Your task to perform on an android device: Is it going to rain this weekend? Image 0: 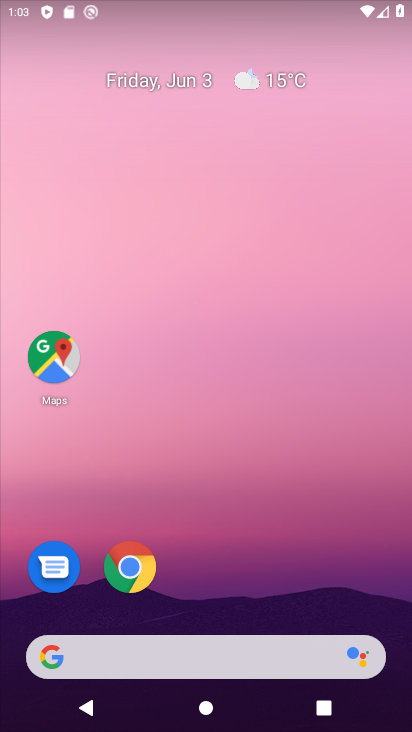
Step 0: drag from (220, 569) to (236, 11)
Your task to perform on an android device: Is it going to rain this weekend? Image 1: 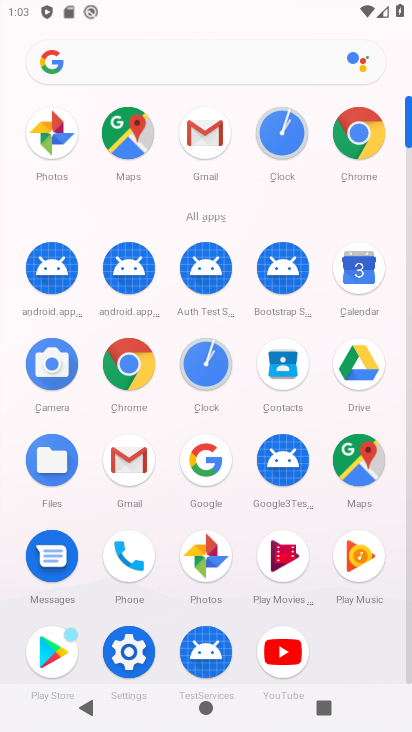
Step 1: click (134, 354)
Your task to perform on an android device: Is it going to rain this weekend? Image 2: 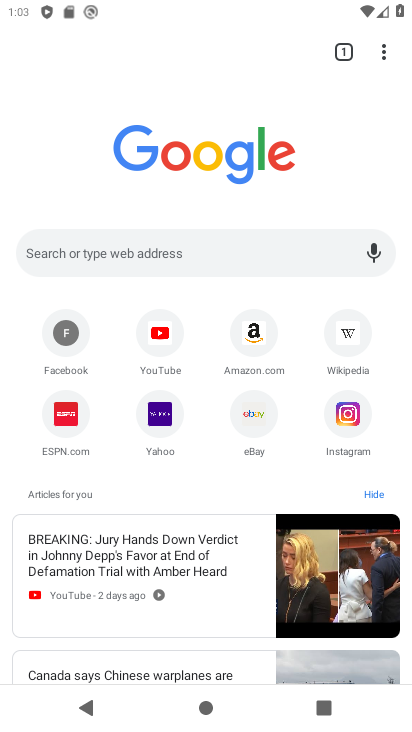
Step 2: click (100, 236)
Your task to perform on an android device: Is it going to rain this weekend? Image 3: 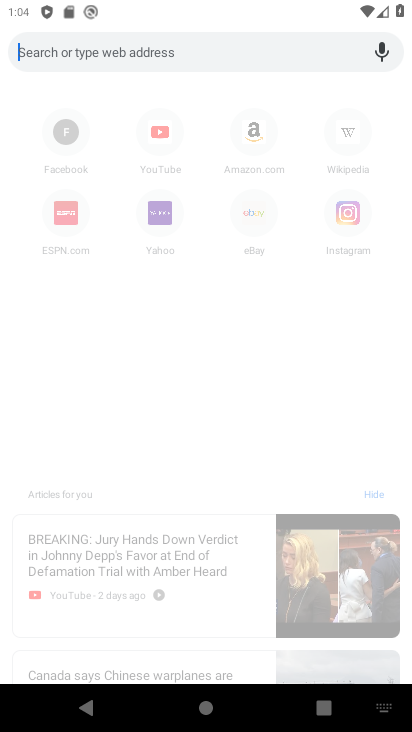
Step 3: type "Is it going to rain this weekend?"
Your task to perform on an android device: Is it going to rain this weekend? Image 4: 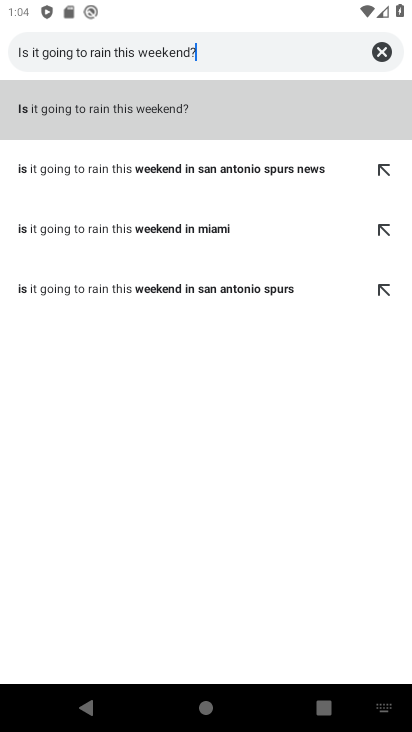
Step 4: click (140, 110)
Your task to perform on an android device: Is it going to rain this weekend? Image 5: 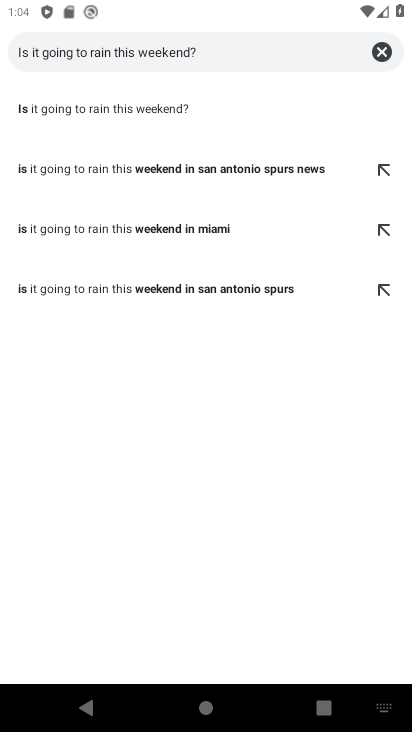
Step 5: click (140, 110)
Your task to perform on an android device: Is it going to rain this weekend? Image 6: 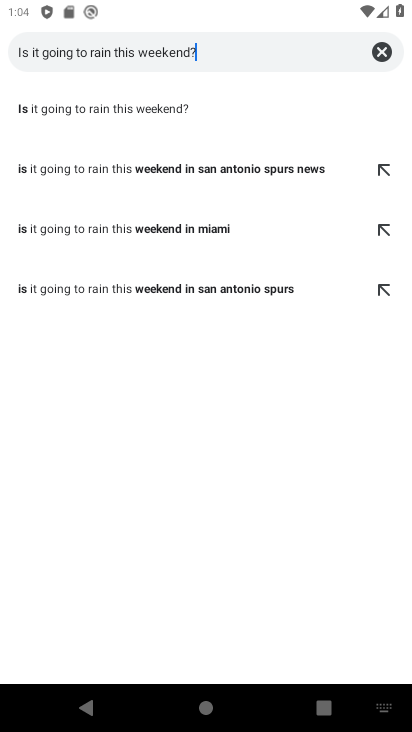
Step 6: click (140, 110)
Your task to perform on an android device: Is it going to rain this weekend? Image 7: 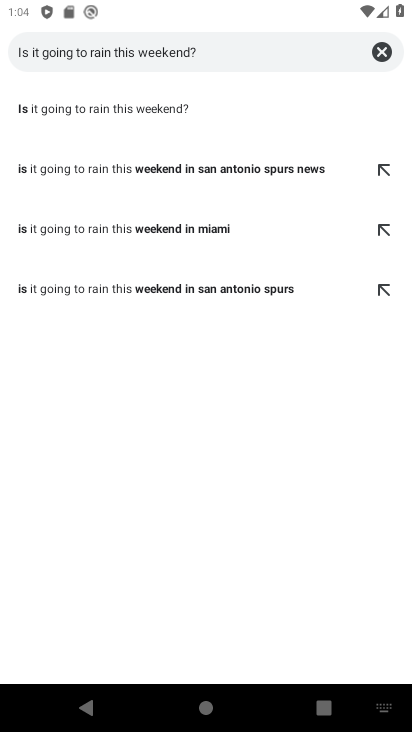
Step 7: click (120, 103)
Your task to perform on an android device: Is it going to rain this weekend? Image 8: 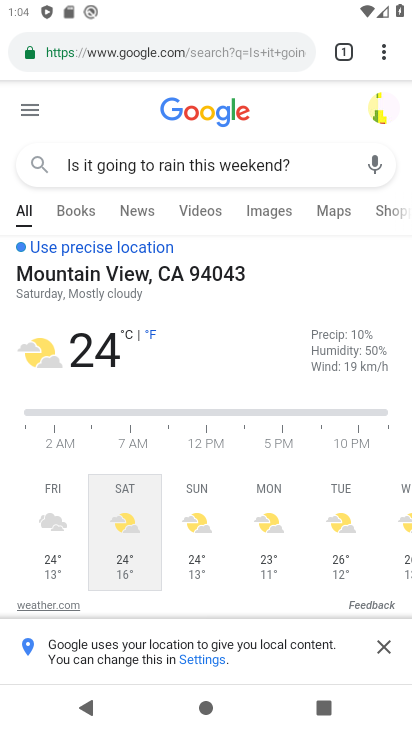
Step 8: task complete